Your task to perform on an android device: Open privacy settings Image 0: 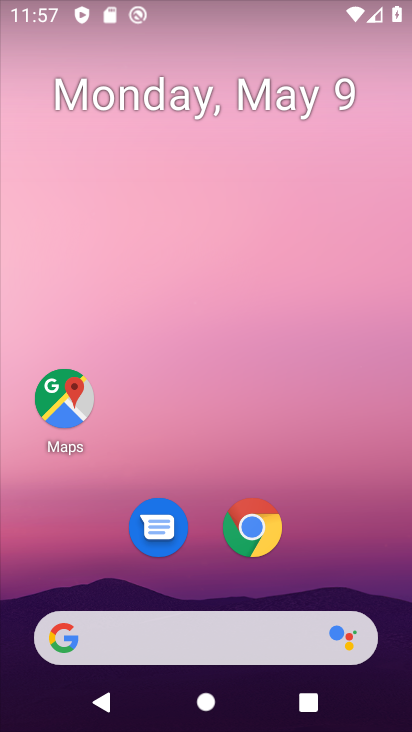
Step 0: click (264, 543)
Your task to perform on an android device: Open privacy settings Image 1: 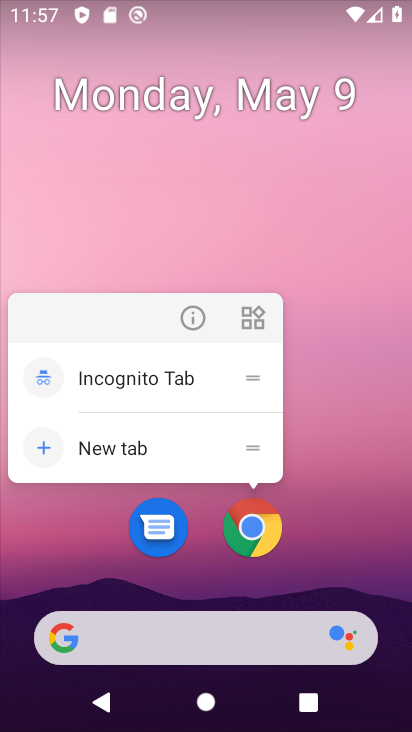
Step 1: click (269, 533)
Your task to perform on an android device: Open privacy settings Image 2: 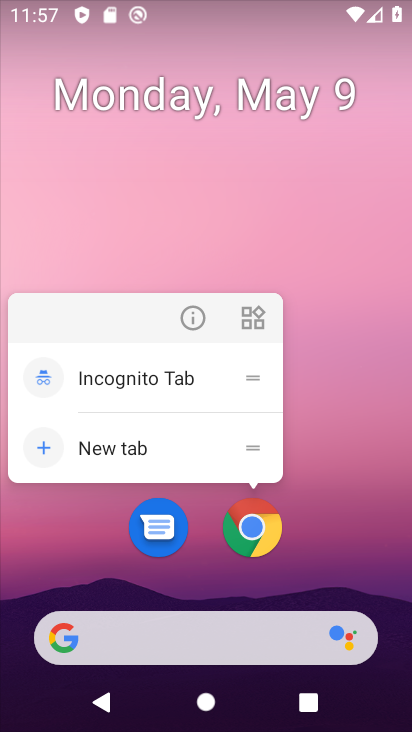
Step 2: click (251, 525)
Your task to perform on an android device: Open privacy settings Image 3: 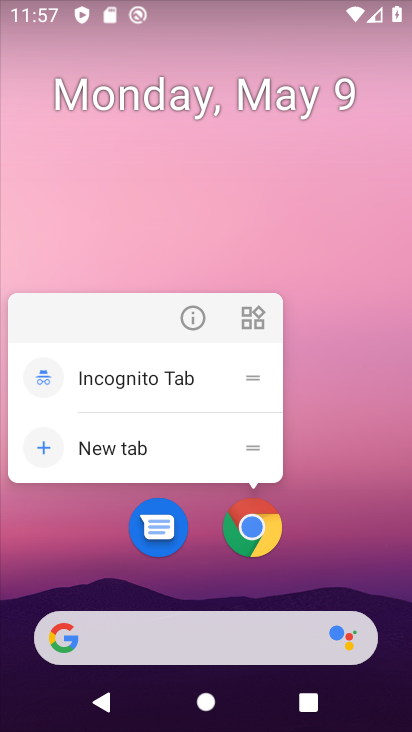
Step 3: click (256, 526)
Your task to perform on an android device: Open privacy settings Image 4: 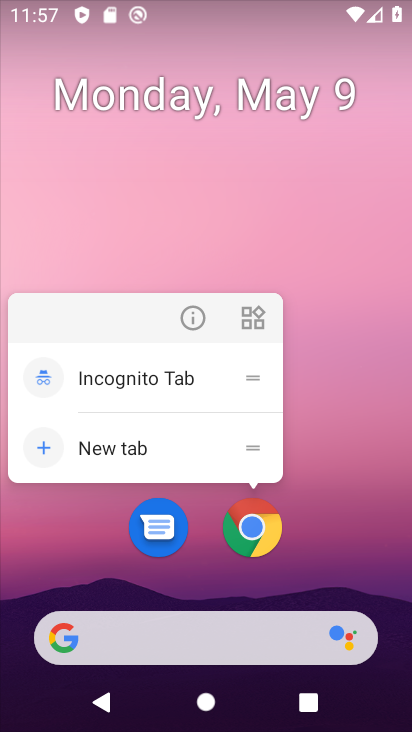
Step 4: click (253, 534)
Your task to perform on an android device: Open privacy settings Image 5: 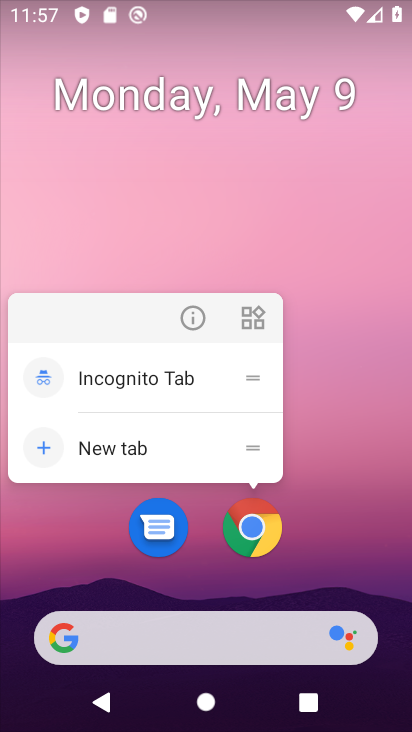
Step 5: click (254, 530)
Your task to perform on an android device: Open privacy settings Image 6: 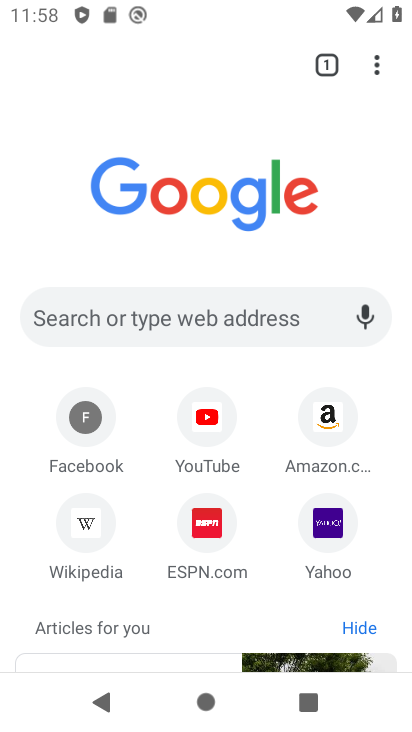
Step 6: drag from (382, 57) to (261, 558)
Your task to perform on an android device: Open privacy settings Image 7: 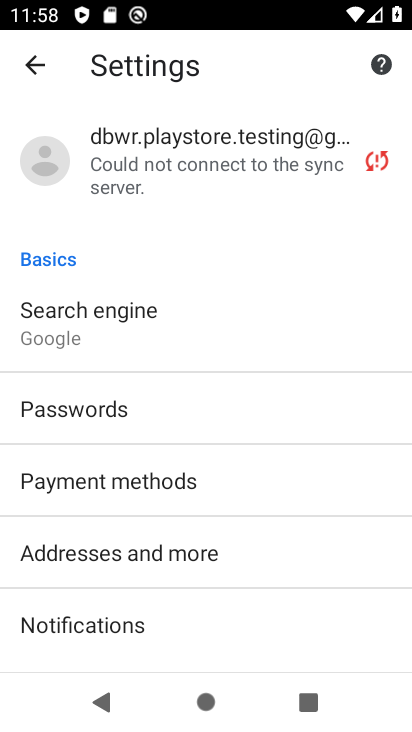
Step 7: drag from (191, 626) to (320, 182)
Your task to perform on an android device: Open privacy settings Image 8: 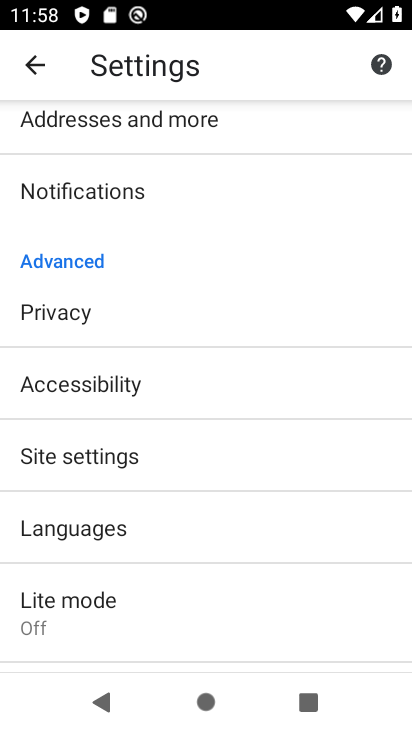
Step 8: click (168, 312)
Your task to perform on an android device: Open privacy settings Image 9: 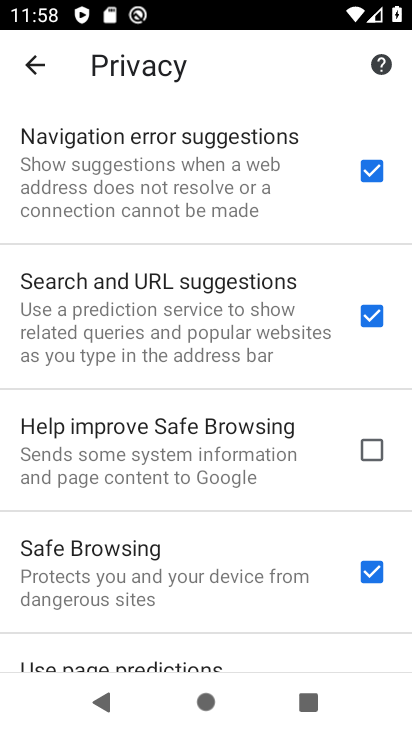
Step 9: task complete